Your task to perform on an android device: Open location settings Image 0: 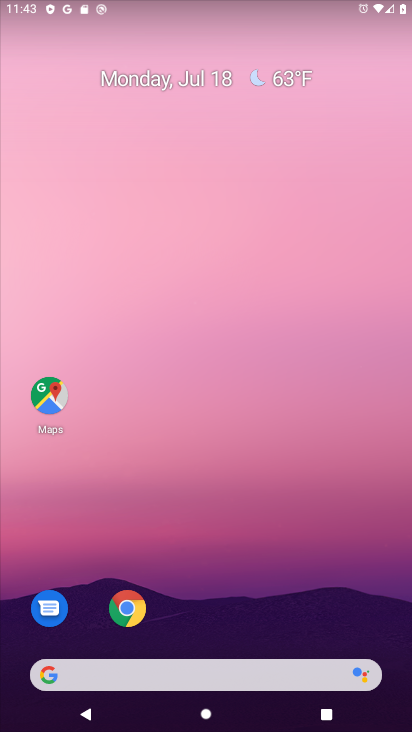
Step 0: drag from (330, 582) to (257, 534)
Your task to perform on an android device: Open location settings Image 1: 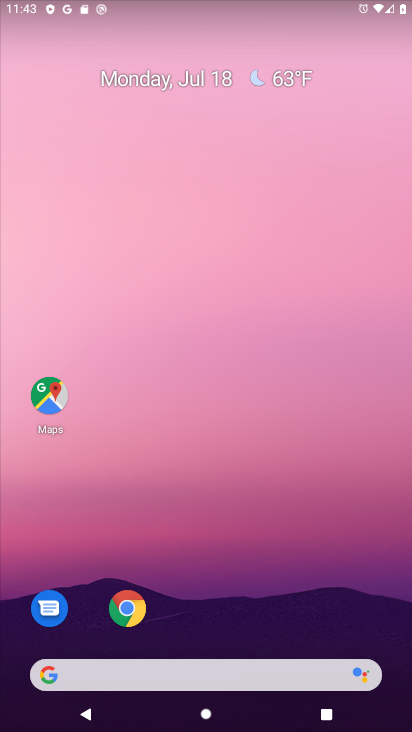
Step 1: drag from (296, 594) to (348, 170)
Your task to perform on an android device: Open location settings Image 2: 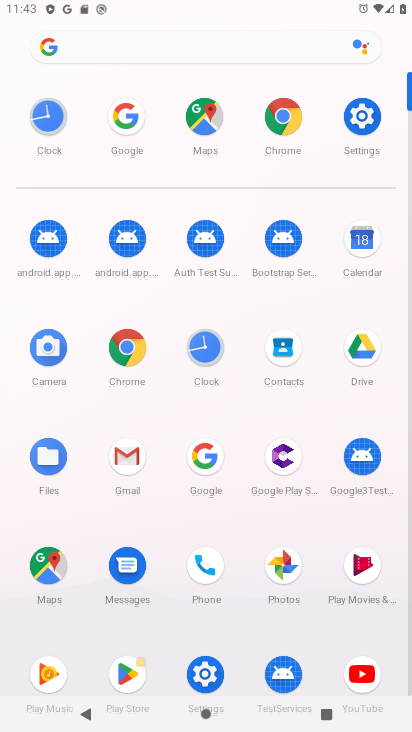
Step 2: click (368, 128)
Your task to perform on an android device: Open location settings Image 3: 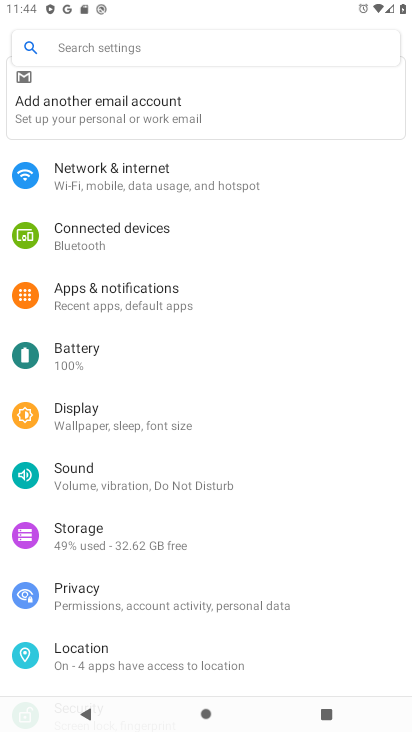
Step 3: click (113, 649)
Your task to perform on an android device: Open location settings Image 4: 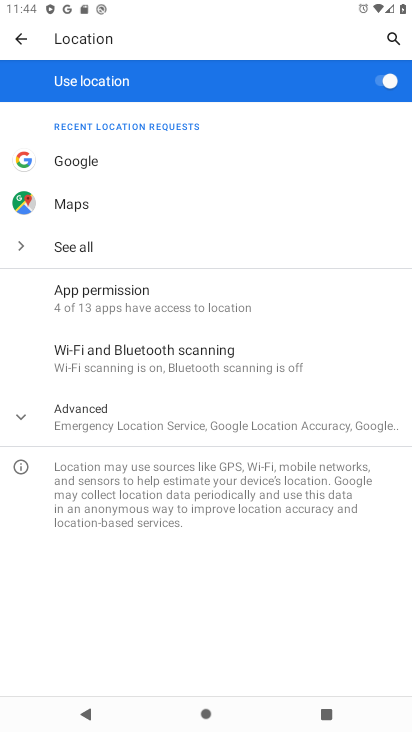
Step 4: task complete